Your task to perform on an android device: Search for Italian restaurants on Maps Image 0: 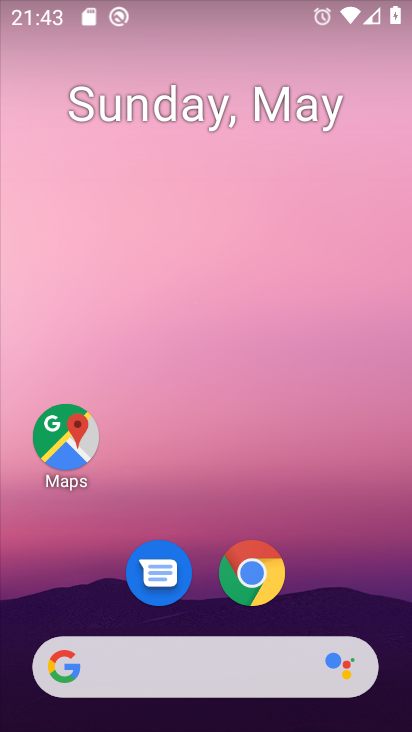
Step 0: click (79, 434)
Your task to perform on an android device: Search for Italian restaurants on Maps Image 1: 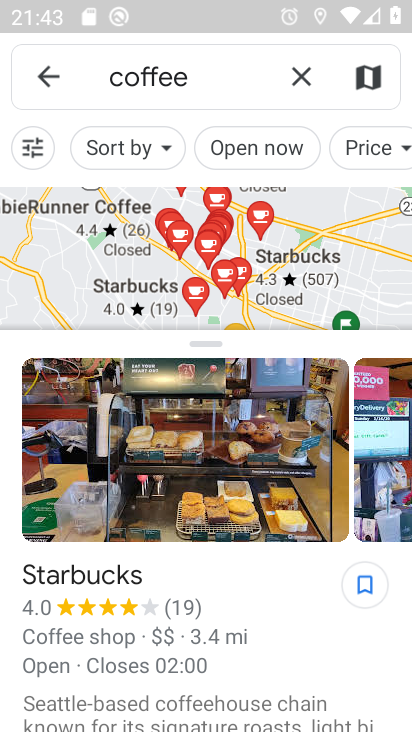
Step 1: click (307, 73)
Your task to perform on an android device: Search for Italian restaurants on Maps Image 2: 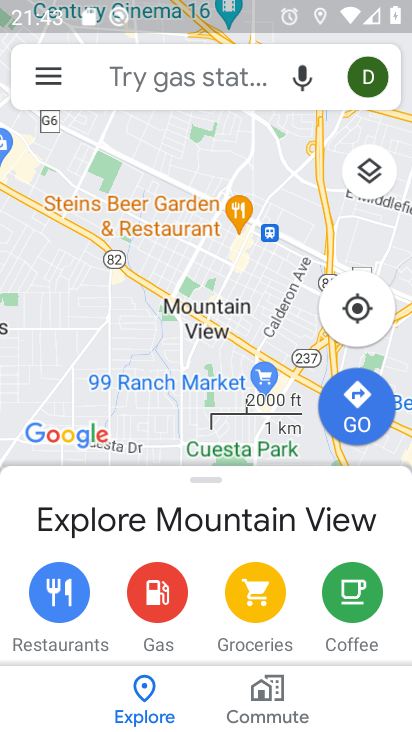
Step 2: click (201, 74)
Your task to perform on an android device: Search for Italian restaurants on Maps Image 3: 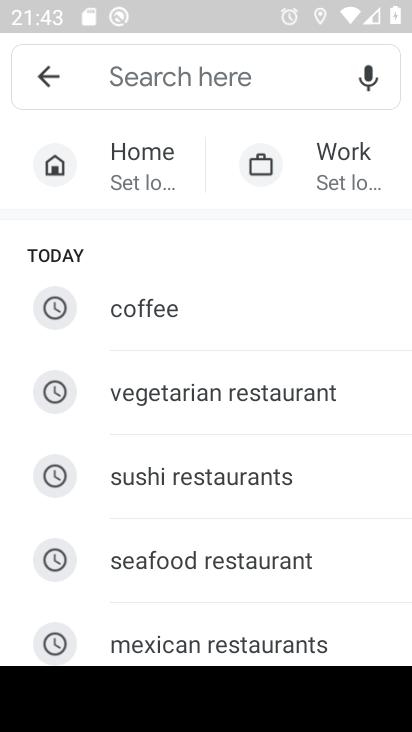
Step 3: drag from (215, 526) to (265, 220)
Your task to perform on an android device: Search for Italian restaurants on Maps Image 4: 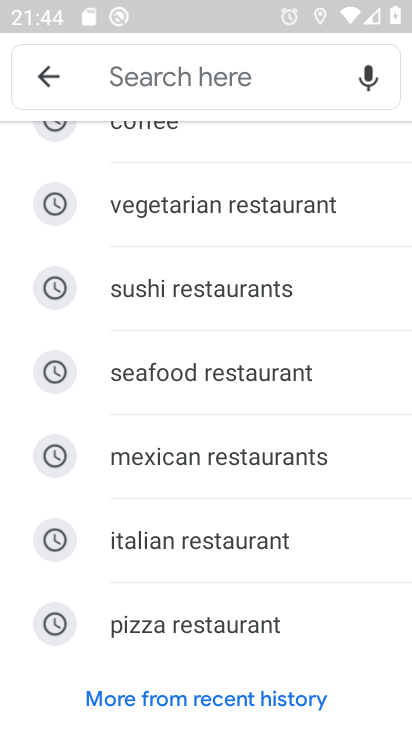
Step 4: click (226, 535)
Your task to perform on an android device: Search for Italian restaurants on Maps Image 5: 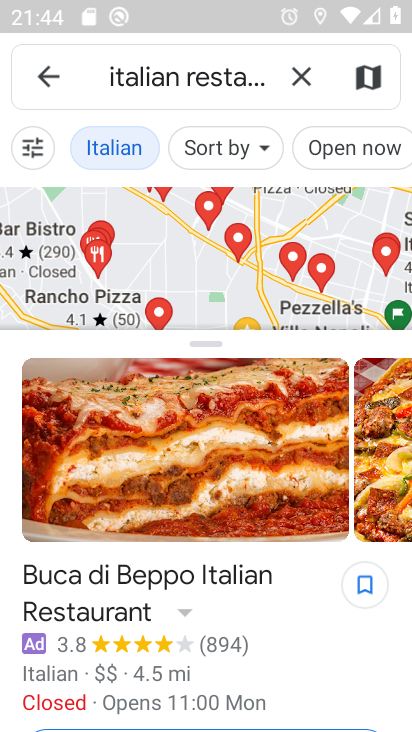
Step 5: task complete